Your task to perform on an android device: Go to network settings Image 0: 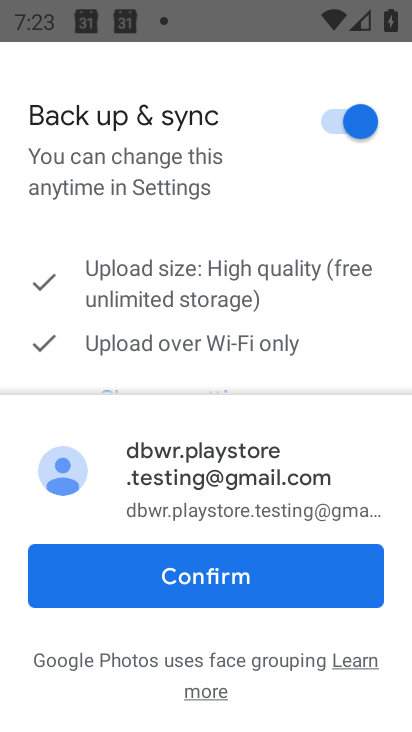
Step 0: press back button
Your task to perform on an android device: Go to network settings Image 1: 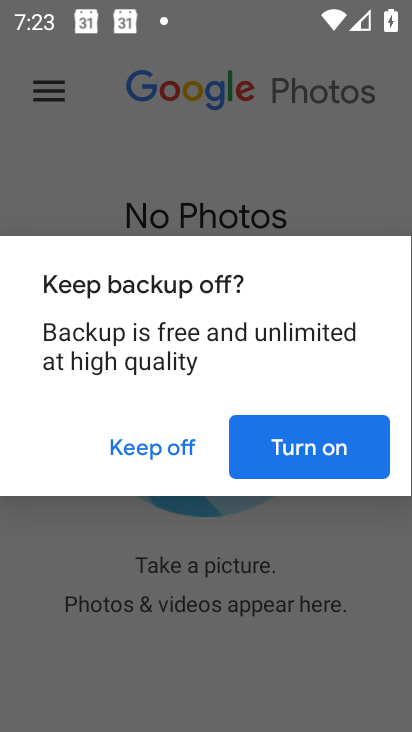
Step 1: press home button
Your task to perform on an android device: Go to network settings Image 2: 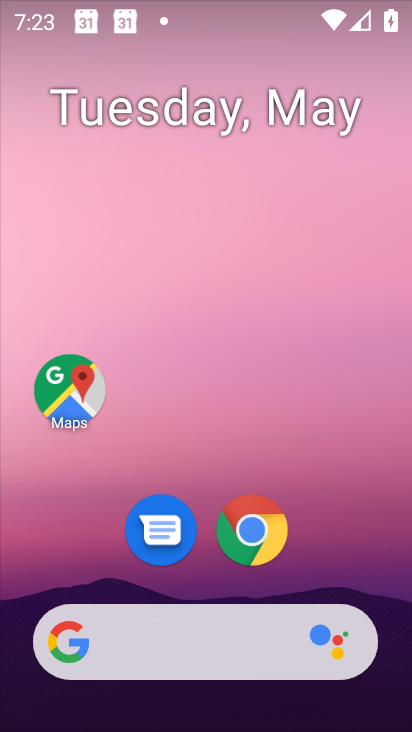
Step 2: drag from (190, 729) to (265, 91)
Your task to perform on an android device: Go to network settings Image 3: 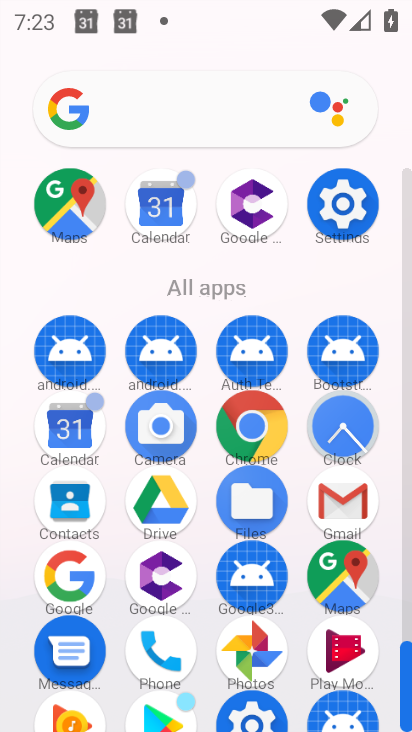
Step 3: click (352, 231)
Your task to perform on an android device: Go to network settings Image 4: 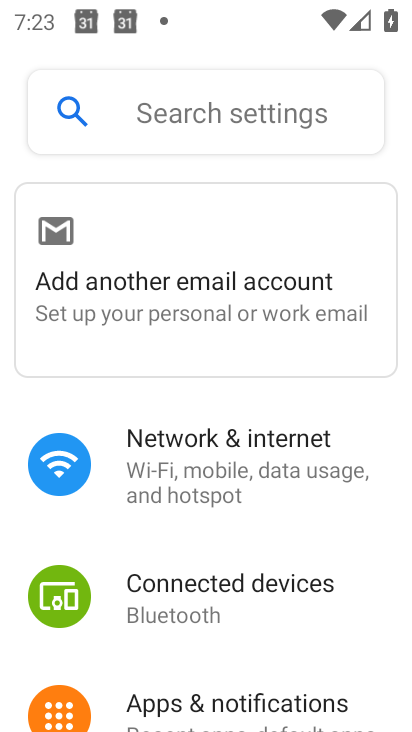
Step 4: click (172, 480)
Your task to perform on an android device: Go to network settings Image 5: 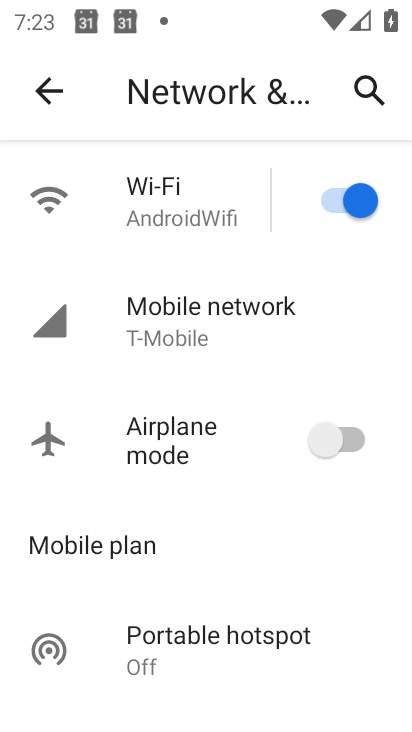
Step 5: click (214, 341)
Your task to perform on an android device: Go to network settings Image 6: 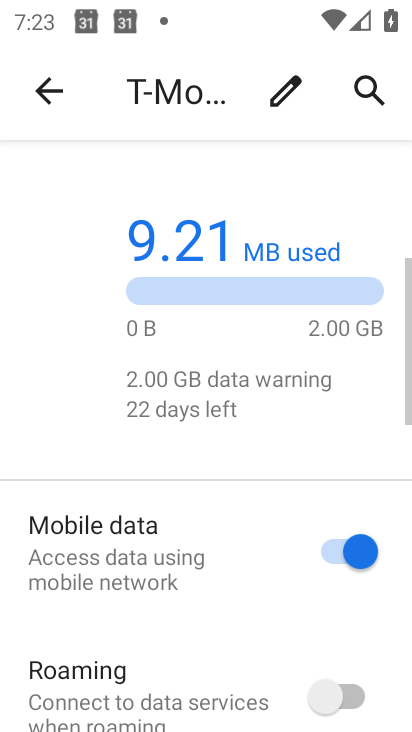
Step 6: drag from (229, 640) to (301, 191)
Your task to perform on an android device: Go to network settings Image 7: 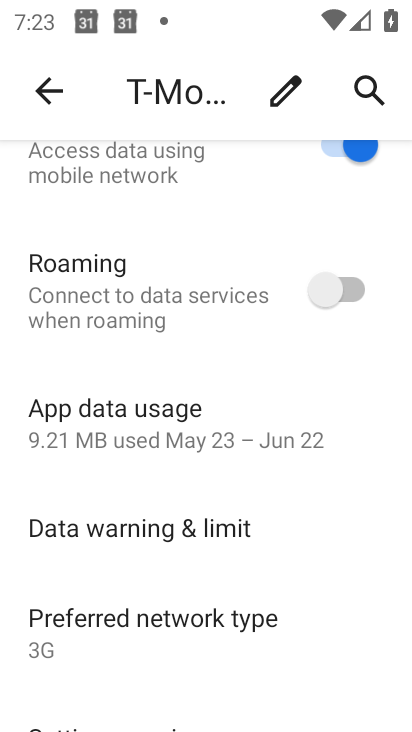
Step 7: drag from (220, 667) to (268, 210)
Your task to perform on an android device: Go to network settings Image 8: 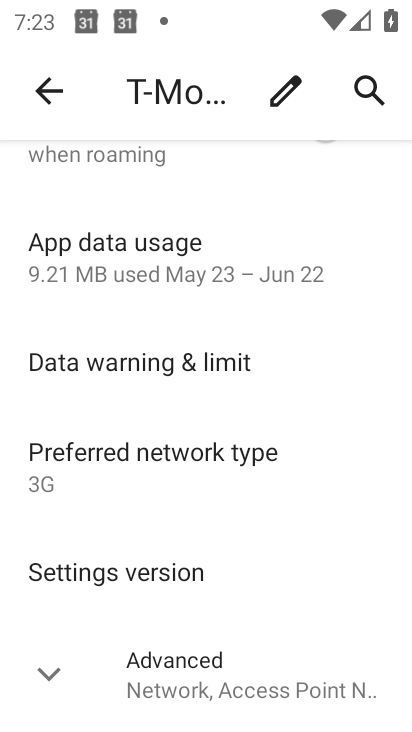
Step 8: click (234, 704)
Your task to perform on an android device: Go to network settings Image 9: 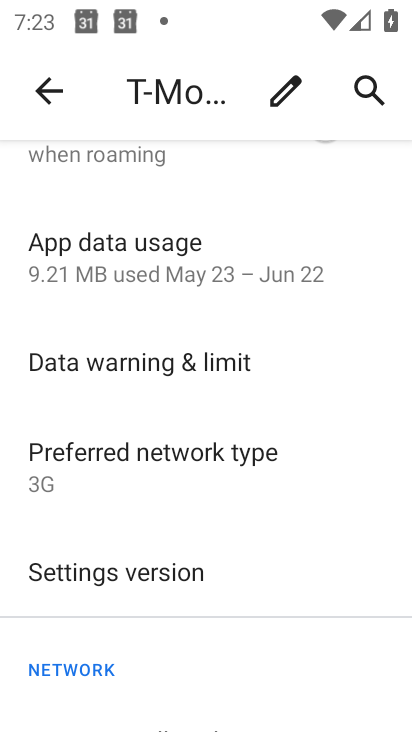
Step 9: task complete